Your task to perform on an android device: turn off wifi Image 0: 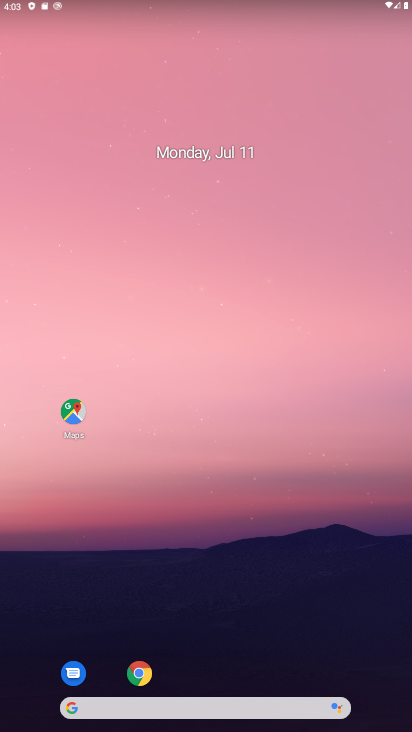
Step 0: drag from (371, 692) to (64, 17)
Your task to perform on an android device: turn off wifi Image 1: 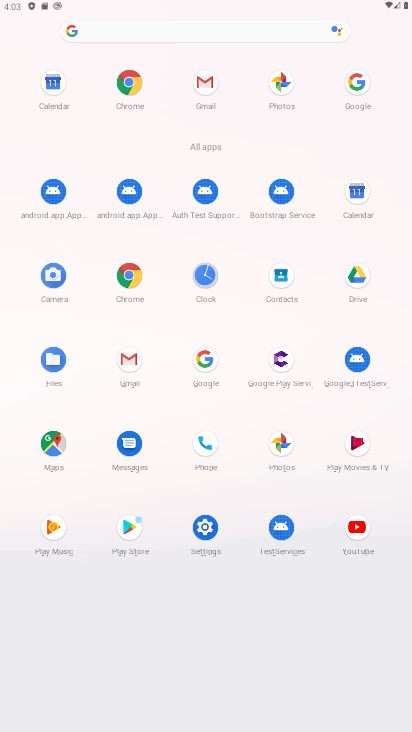
Step 1: drag from (206, 5) to (271, 539)
Your task to perform on an android device: turn off wifi Image 2: 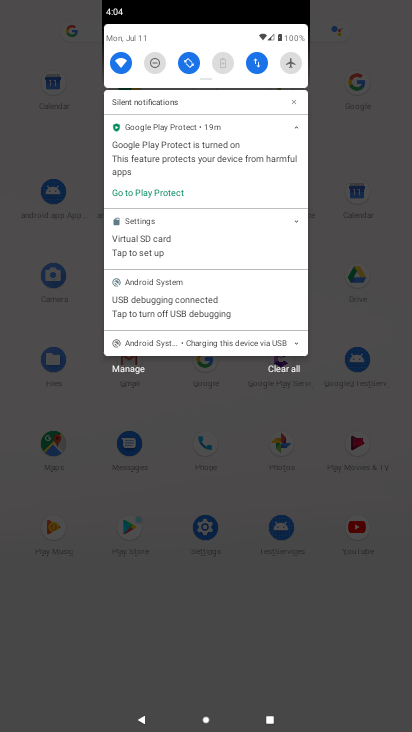
Step 2: click (122, 54)
Your task to perform on an android device: turn off wifi Image 3: 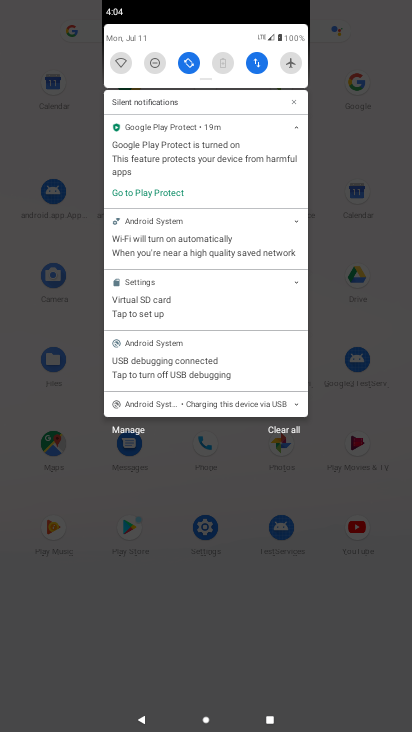
Step 3: task complete